Your task to perform on an android device: turn on priority inbox in the gmail app Image 0: 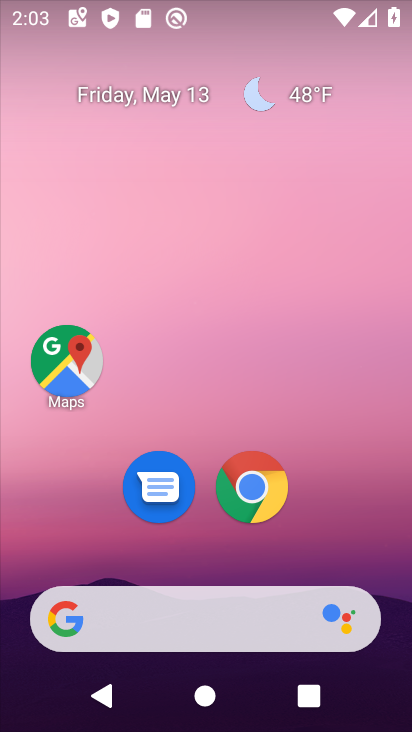
Step 0: drag from (125, 587) to (209, 318)
Your task to perform on an android device: turn on priority inbox in the gmail app Image 1: 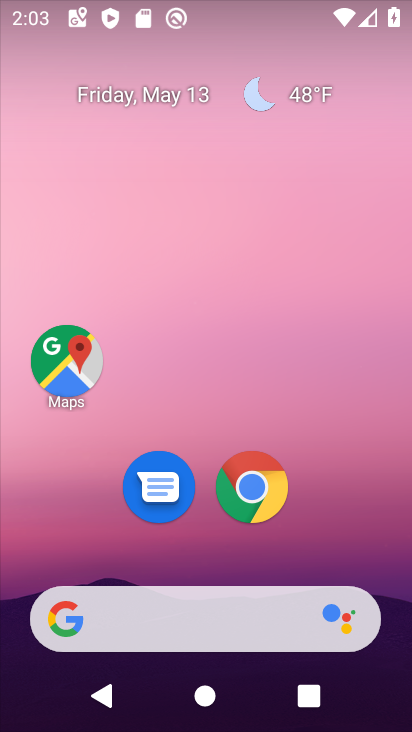
Step 1: drag from (100, 574) to (273, 62)
Your task to perform on an android device: turn on priority inbox in the gmail app Image 2: 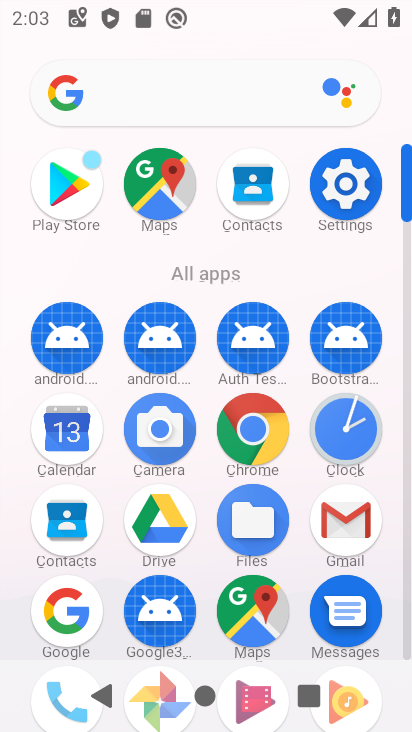
Step 2: click (338, 519)
Your task to perform on an android device: turn on priority inbox in the gmail app Image 3: 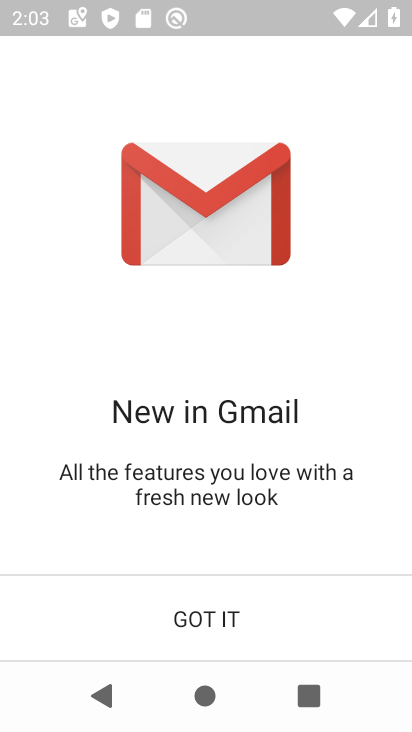
Step 3: click (236, 648)
Your task to perform on an android device: turn on priority inbox in the gmail app Image 4: 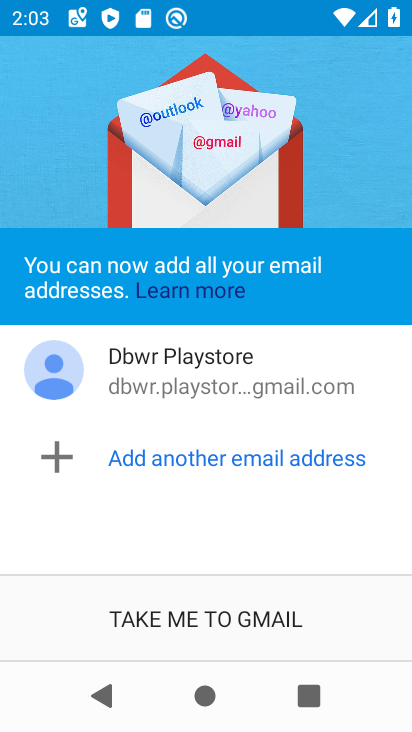
Step 4: click (216, 643)
Your task to perform on an android device: turn on priority inbox in the gmail app Image 5: 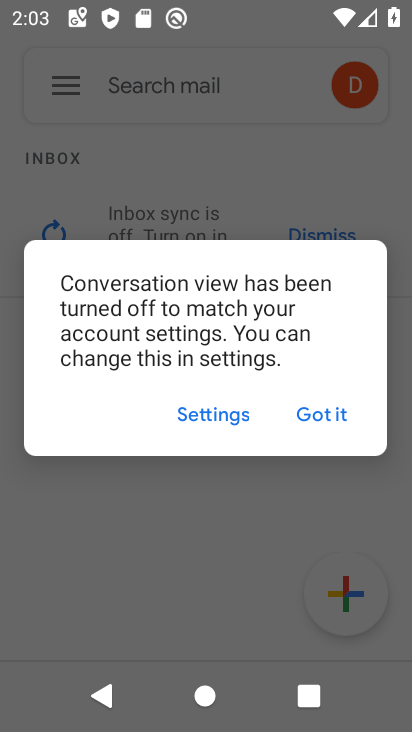
Step 5: click (330, 430)
Your task to perform on an android device: turn on priority inbox in the gmail app Image 6: 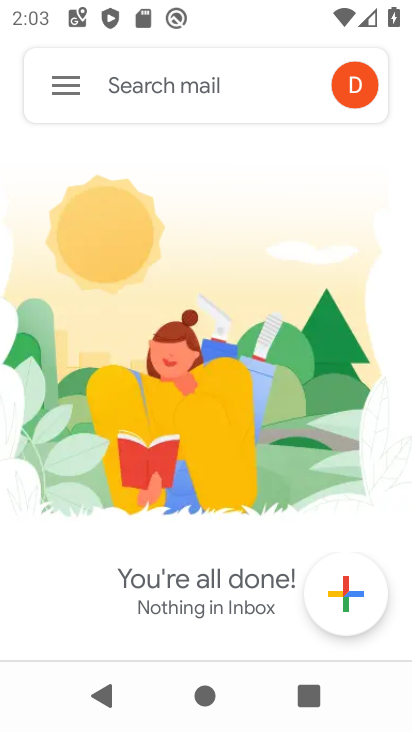
Step 6: click (85, 92)
Your task to perform on an android device: turn on priority inbox in the gmail app Image 7: 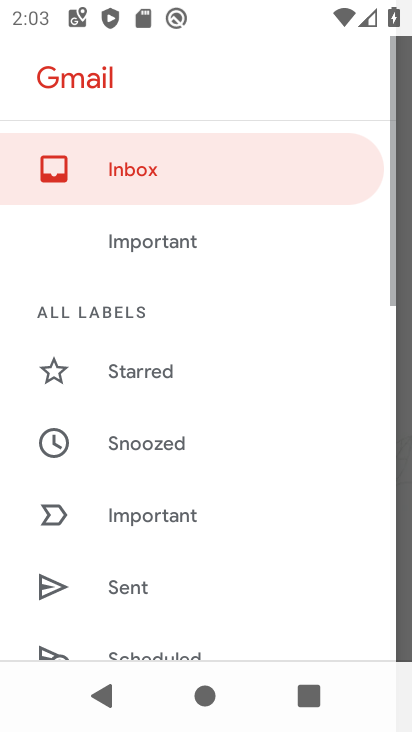
Step 7: drag from (198, 538) to (349, 150)
Your task to perform on an android device: turn on priority inbox in the gmail app Image 8: 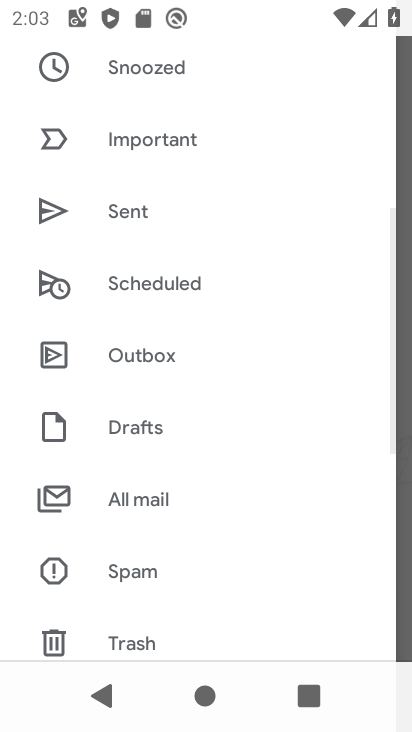
Step 8: drag from (188, 602) to (313, 183)
Your task to perform on an android device: turn on priority inbox in the gmail app Image 9: 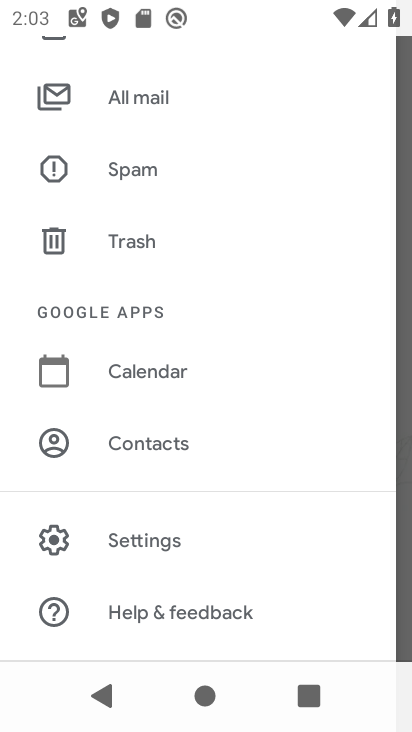
Step 9: click (200, 554)
Your task to perform on an android device: turn on priority inbox in the gmail app Image 10: 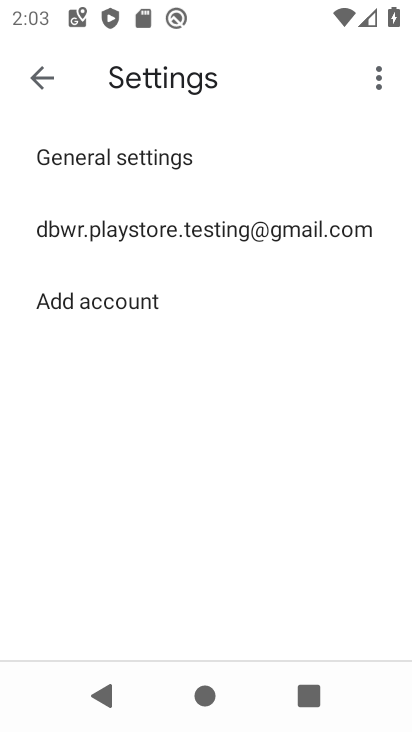
Step 10: click (305, 223)
Your task to perform on an android device: turn on priority inbox in the gmail app Image 11: 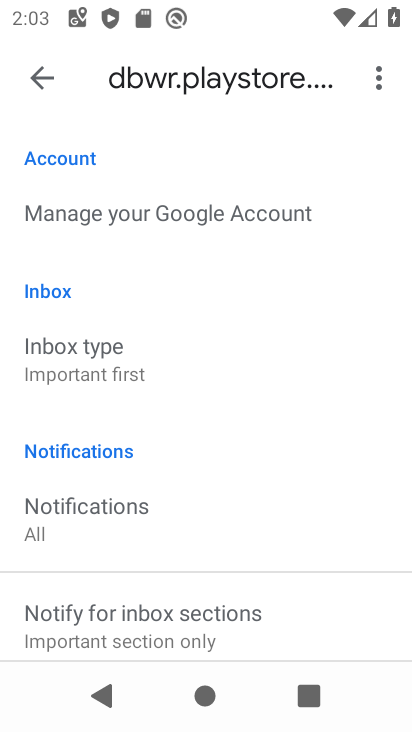
Step 11: drag from (240, 350) to (284, 273)
Your task to perform on an android device: turn on priority inbox in the gmail app Image 12: 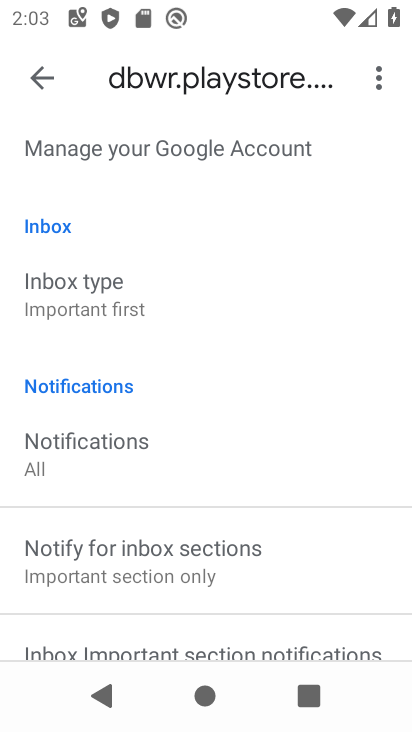
Step 12: drag from (164, 510) to (366, 158)
Your task to perform on an android device: turn on priority inbox in the gmail app Image 13: 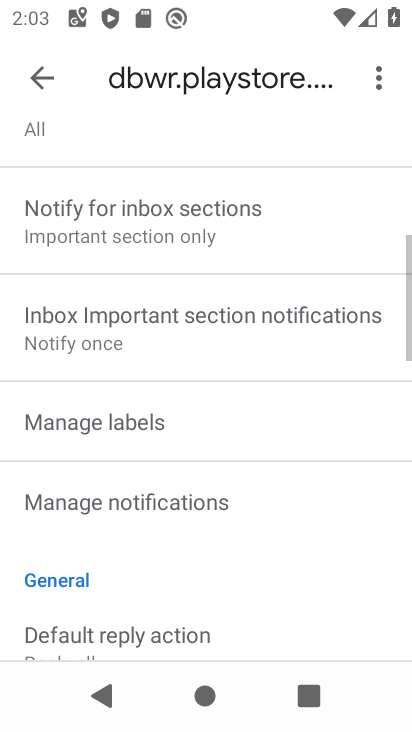
Step 13: drag from (215, 501) to (313, 248)
Your task to perform on an android device: turn on priority inbox in the gmail app Image 14: 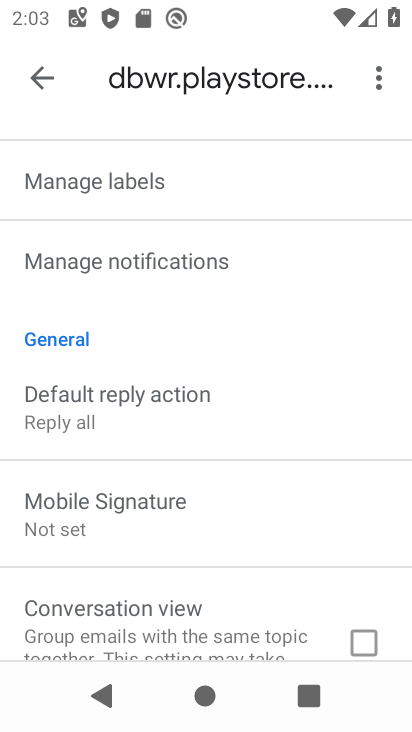
Step 14: drag from (283, 175) to (253, 575)
Your task to perform on an android device: turn on priority inbox in the gmail app Image 15: 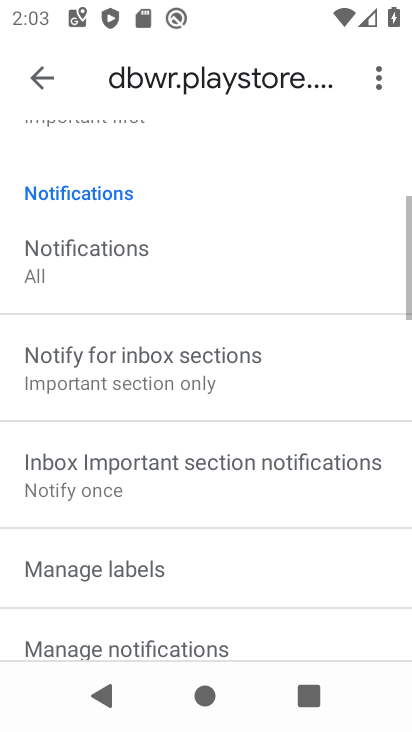
Step 15: drag from (212, 249) to (201, 620)
Your task to perform on an android device: turn on priority inbox in the gmail app Image 16: 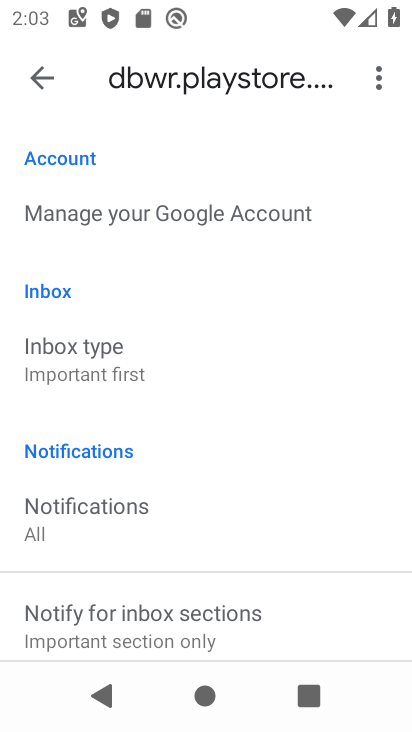
Step 16: click (137, 378)
Your task to perform on an android device: turn on priority inbox in the gmail app Image 17: 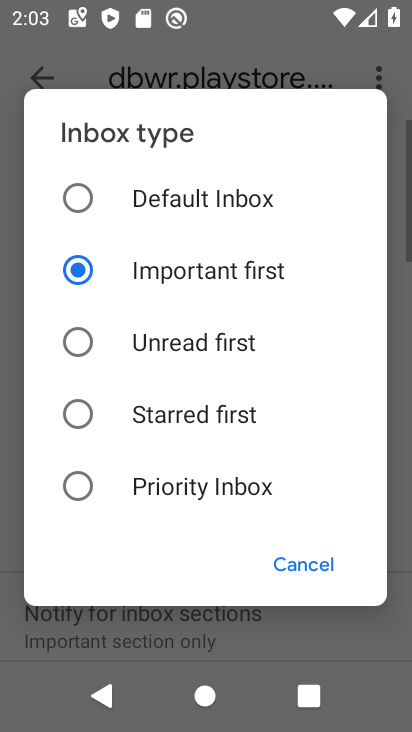
Step 17: click (205, 500)
Your task to perform on an android device: turn on priority inbox in the gmail app Image 18: 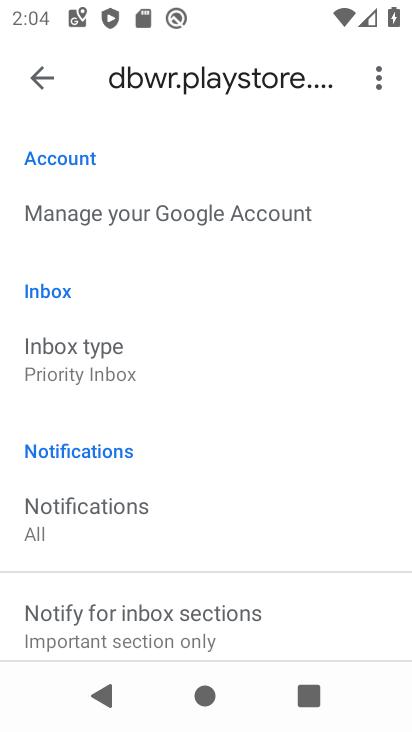
Step 18: task complete